Your task to perform on an android device: Go to display settings Image 0: 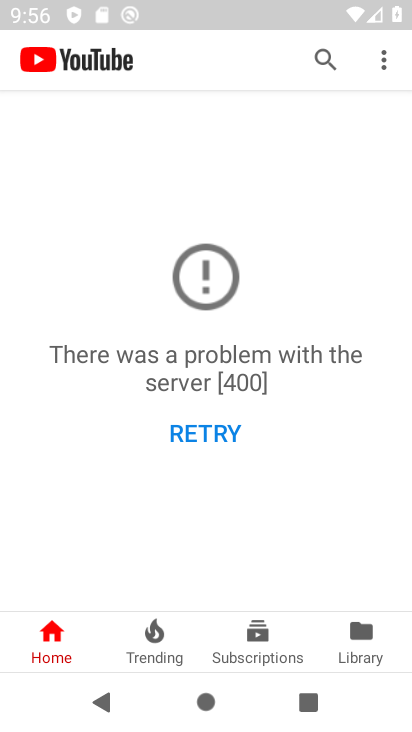
Step 0: press home button
Your task to perform on an android device: Go to display settings Image 1: 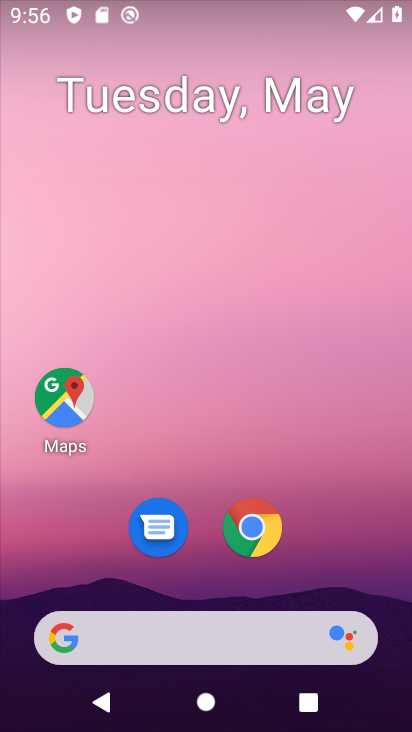
Step 1: drag from (181, 589) to (188, 36)
Your task to perform on an android device: Go to display settings Image 2: 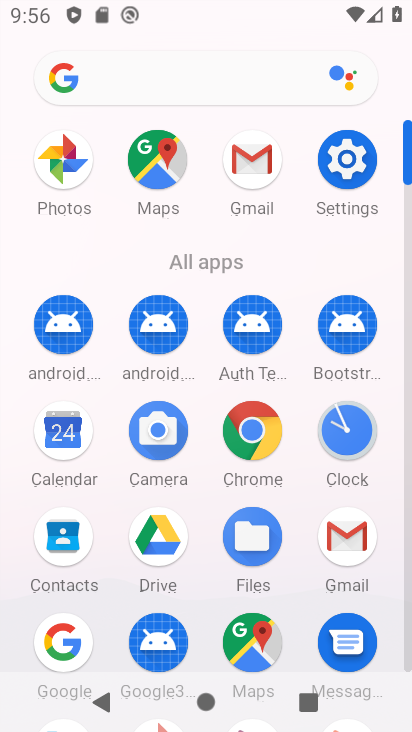
Step 2: click (341, 166)
Your task to perform on an android device: Go to display settings Image 3: 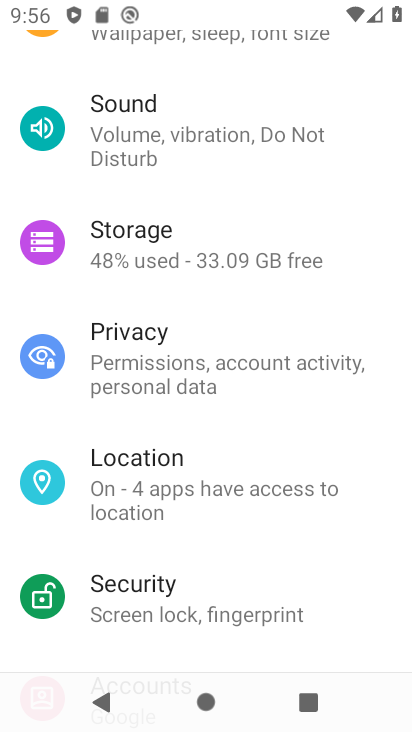
Step 3: drag from (198, 171) to (223, 557)
Your task to perform on an android device: Go to display settings Image 4: 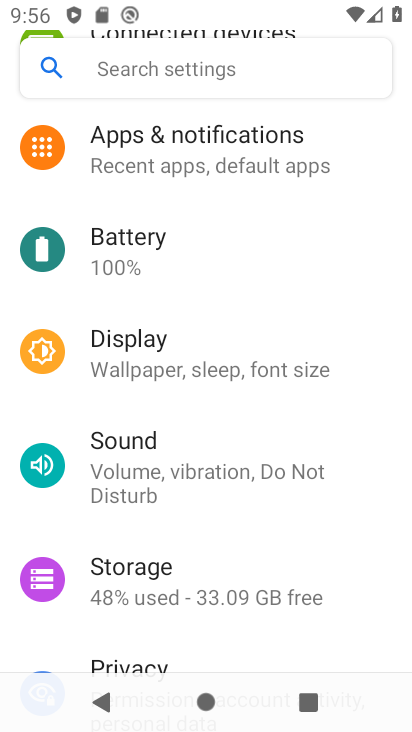
Step 4: click (131, 356)
Your task to perform on an android device: Go to display settings Image 5: 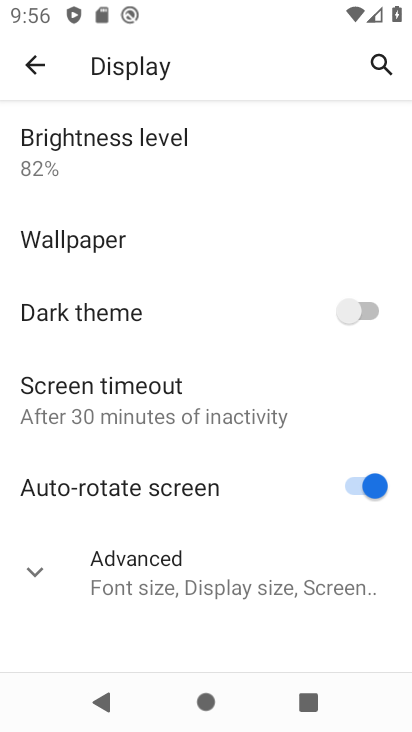
Step 5: task complete